Your task to perform on an android device: read, delete, or share a saved page in the chrome app Image 0: 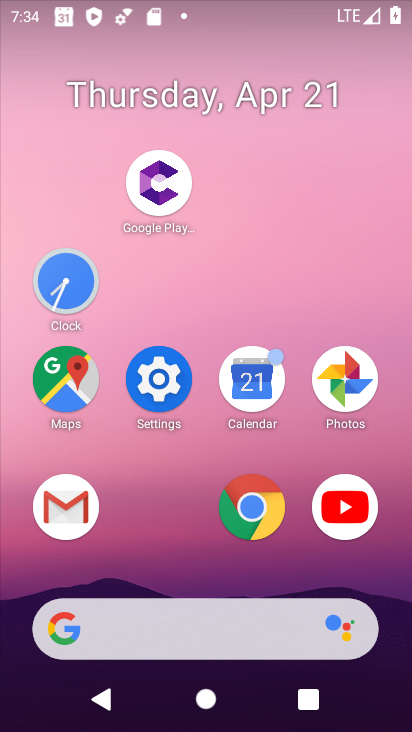
Step 0: click (257, 508)
Your task to perform on an android device: read, delete, or share a saved page in the chrome app Image 1: 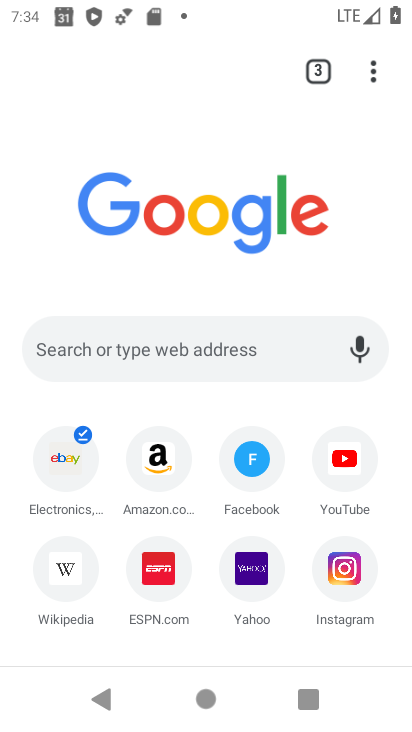
Step 1: click (375, 62)
Your task to perform on an android device: read, delete, or share a saved page in the chrome app Image 2: 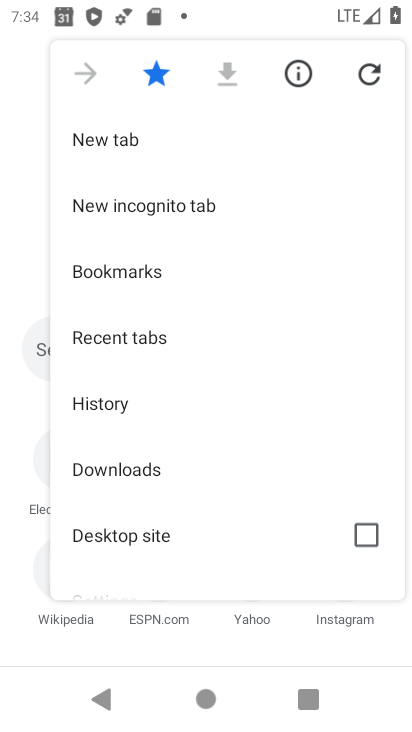
Step 2: click (135, 467)
Your task to perform on an android device: read, delete, or share a saved page in the chrome app Image 3: 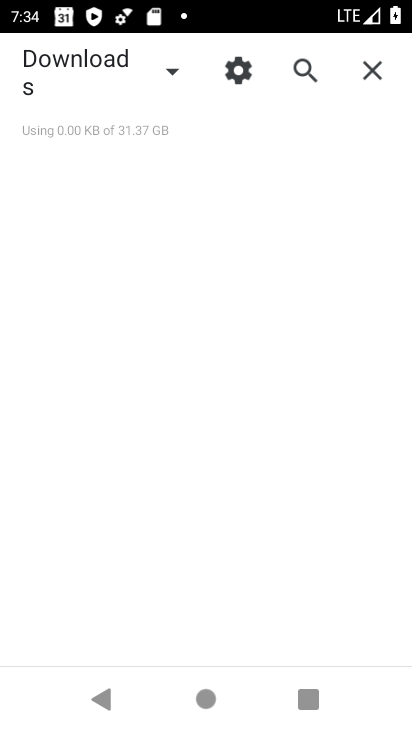
Step 3: task complete